Your task to perform on an android device: read, delete, or share a saved page in the chrome app Image 0: 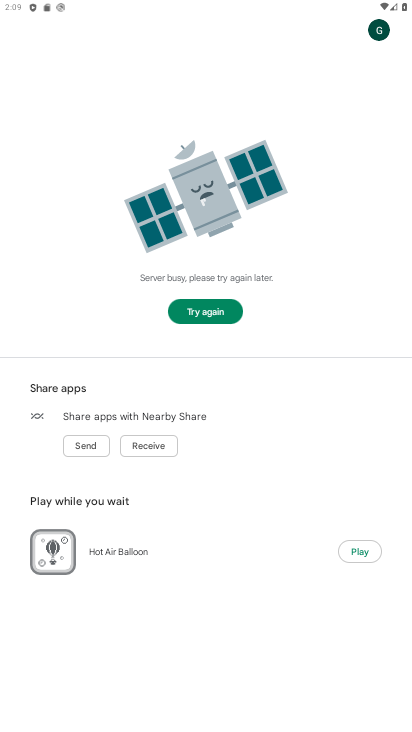
Step 0: press home button
Your task to perform on an android device: read, delete, or share a saved page in the chrome app Image 1: 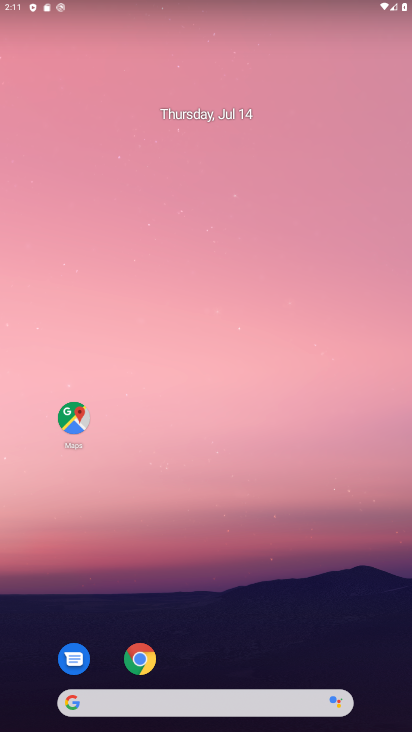
Step 1: press home button
Your task to perform on an android device: read, delete, or share a saved page in the chrome app Image 2: 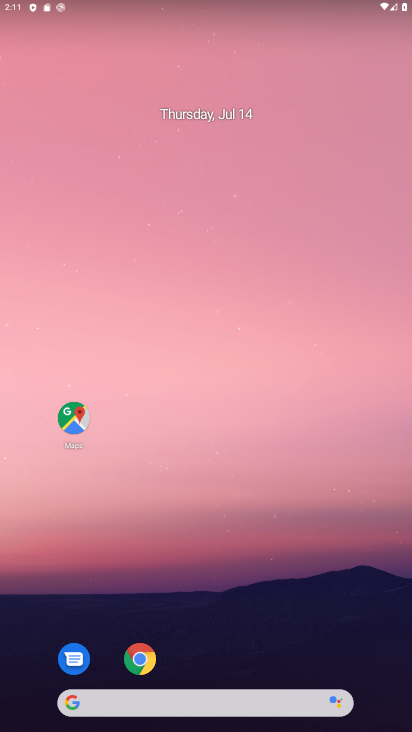
Step 2: drag from (279, 593) to (288, 110)
Your task to perform on an android device: read, delete, or share a saved page in the chrome app Image 3: 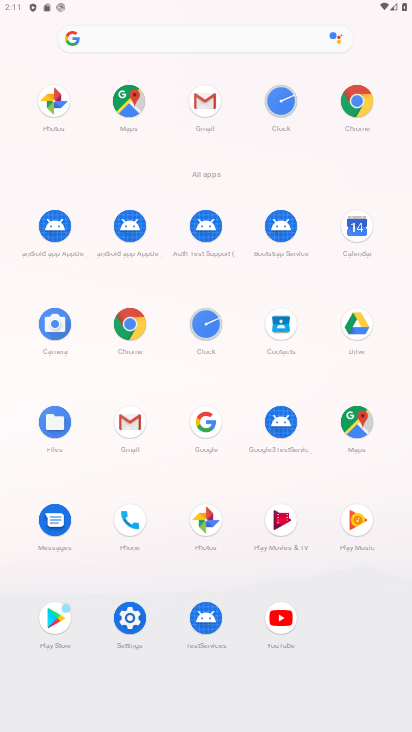
Step 3: click (357, 103)
Your task to perform on an android device: read, delete, or share a saved page in the chrome app Image 4: 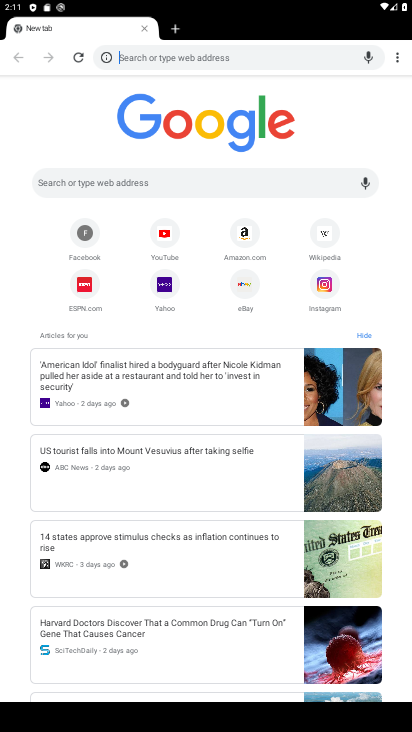
Step 4: drag from (398, 63) to (282, 204)
Your task to perform on an android device: read, delete, or share a saved page in the chrome app Image 5: 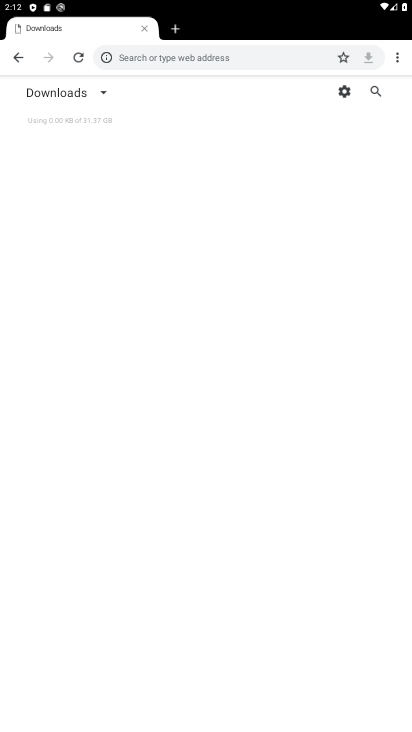
Step 5: click (106, 94)
Your task to perform on an android device: read, delete, or share a saved page in the chrome app Image 6: 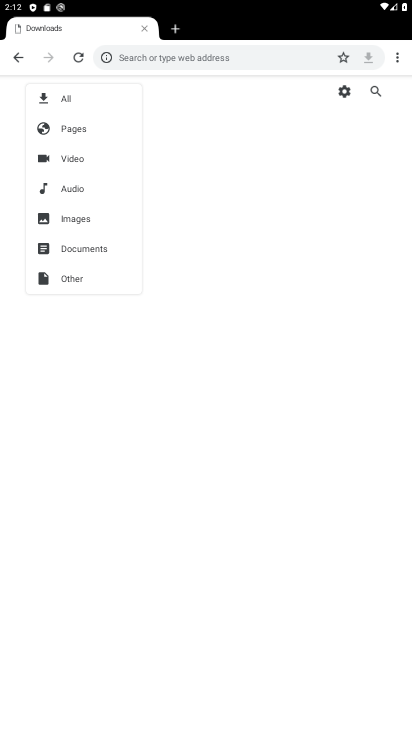
Step 6: click (57, 134)
Your task to perform on an android device: read, delete, or share a saved page in the chrome app Image 7: 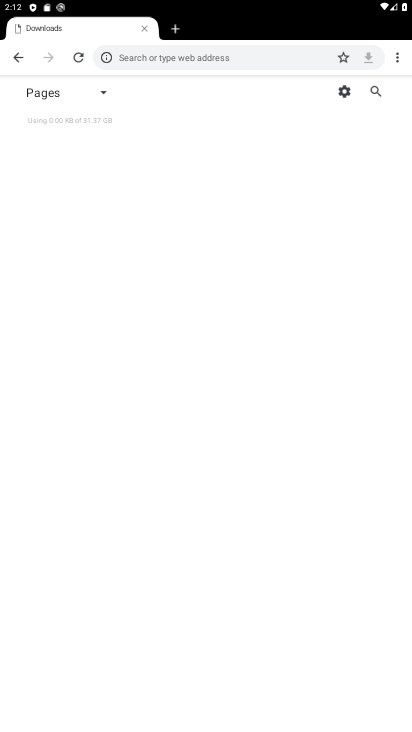
Step 7: task complete